Your task to perform on an android device: open app "Venmo" (install if not already installed) Image 0: 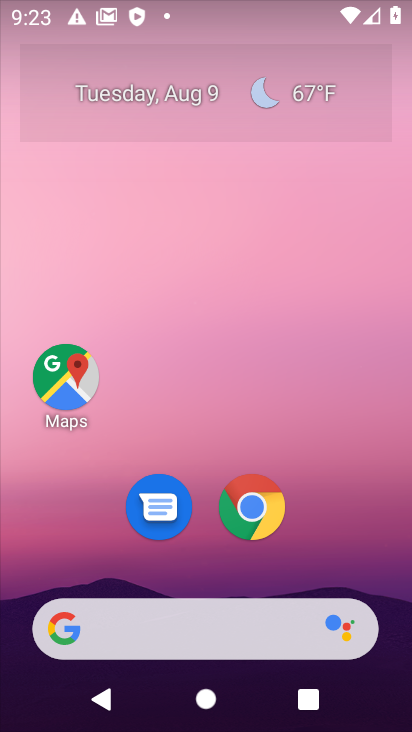
Step 0: drag from (333, 636) to (231, 25)
Your task to perform on an android device: open app "Venmo" (install if not already installed) Image 1: 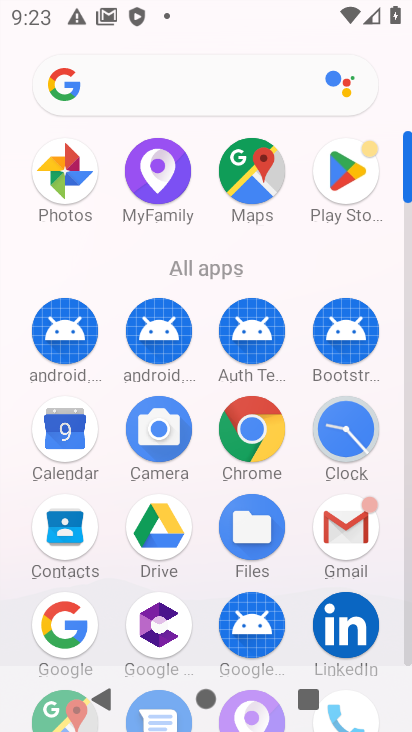
Step 1: click (337, 166)
Your task to perform on an android device: open app "Venmo" (install if not already installed) Image 2: 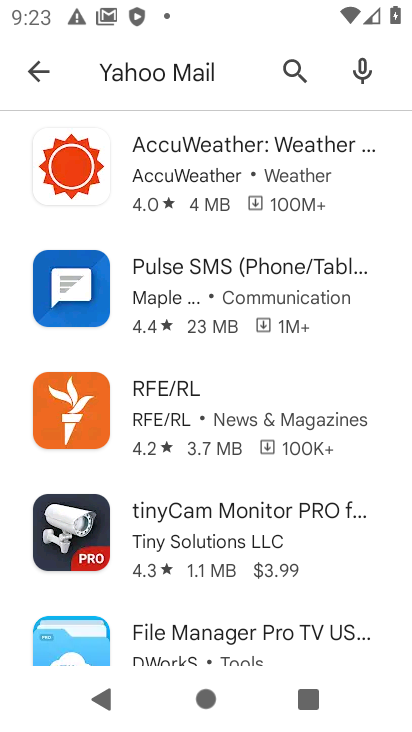
Step 2: click (38, 59)
Your task to perform on an android device: open app "Venmo" (install if not already installed) Image 3: 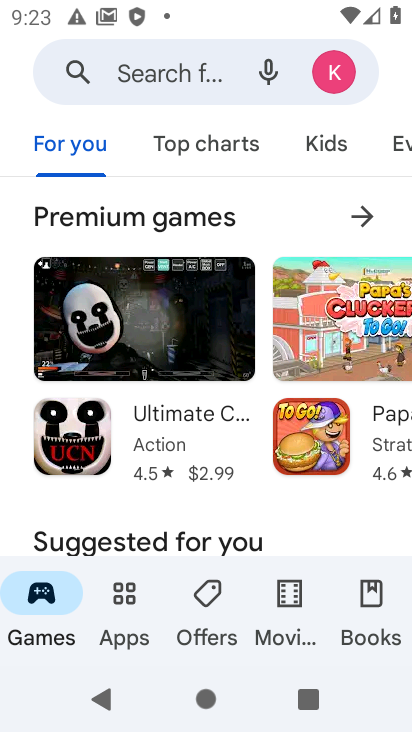
Step 3: click (191, 80)
Your task to perform on an android device: open app "Venmo" (install if not already installed) Image 4: 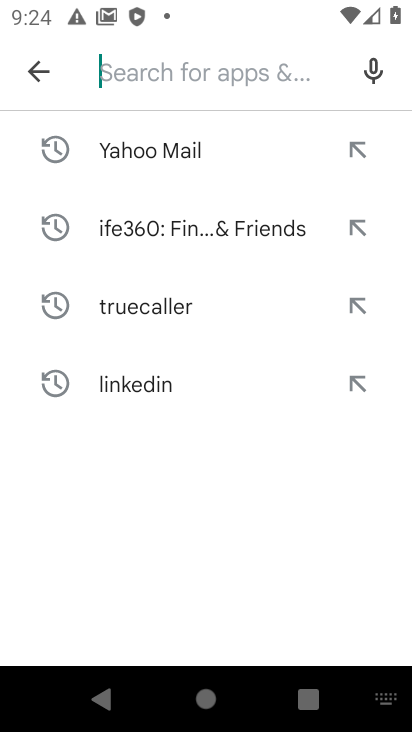
Step 4: type "Venmo"
Your task to perform on an android device: open app "Venmo" (install if not already installed) Image 5: 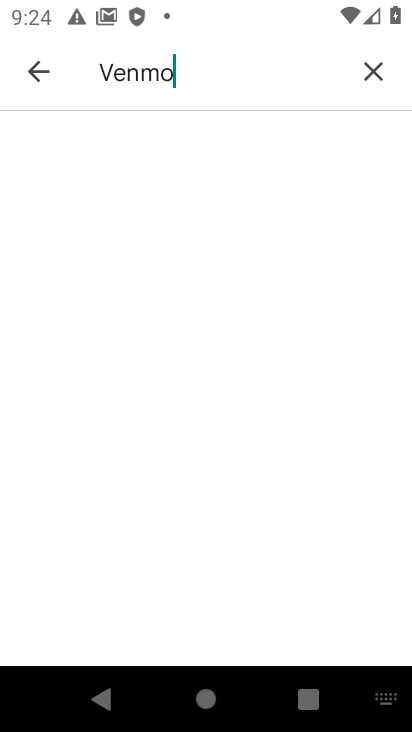
Step 5: press enter
Your task to perform on an android device: open app "Venmo" (install if not already installed) Image 6: 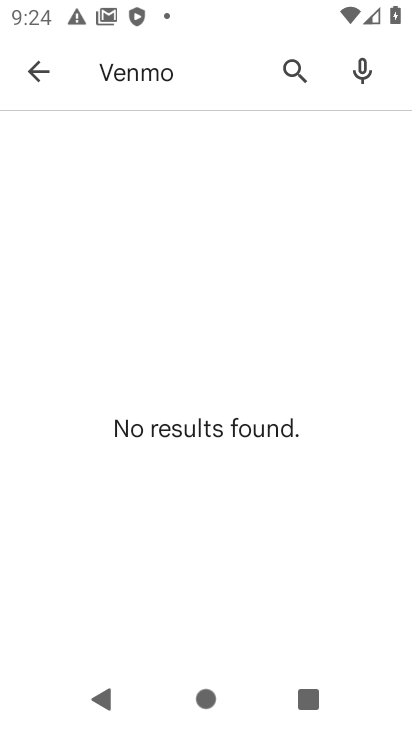
Step 6: click (36, 77)
Your task to perform on an android device: open app "Venmo" (install if not already installed) Image 7: 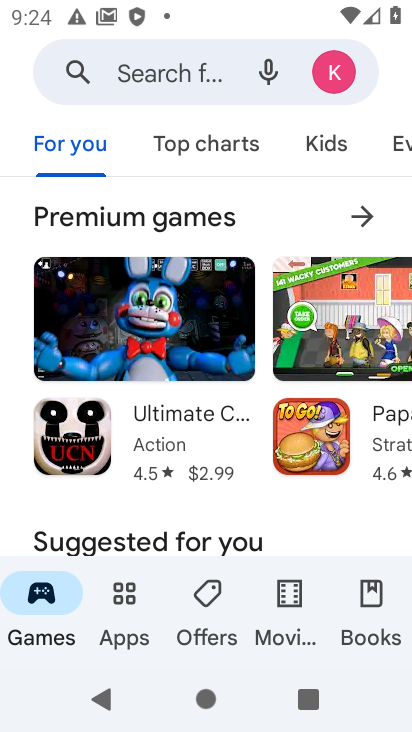
Step 7: click (117, 82)
Your task to perform on an android device: open app "Venmo" (install if not already installed) Image 8: 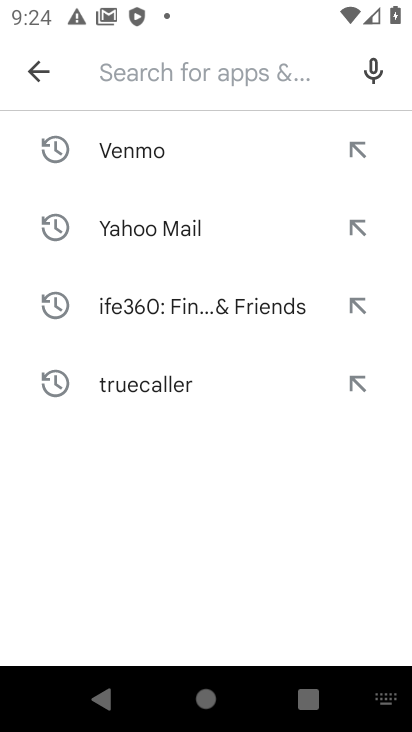
Step 8: click (115, 151)
Your task to perform on an android device: open app "Venmo" (install if not already installed) Image 9: 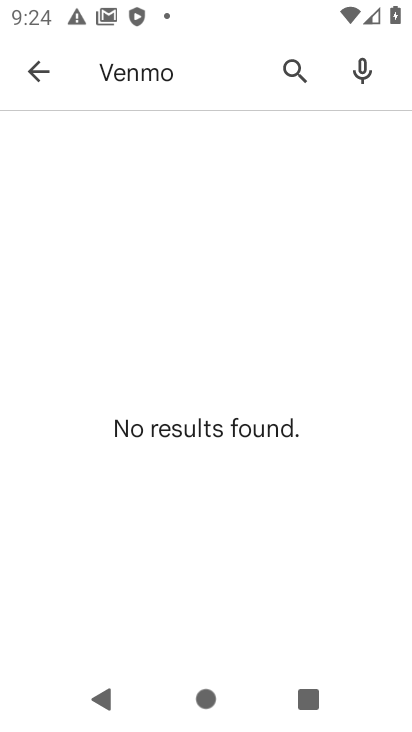
Step 9: task complete